Your task to perform on an android device: turn on sleep mode Image 0: 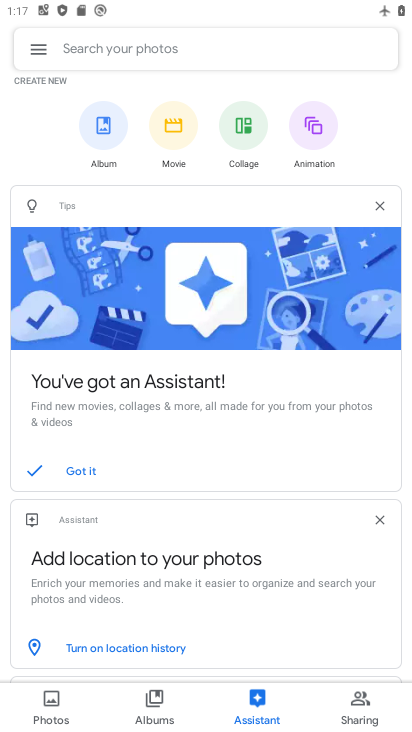
Step 0: press home button
Your task to perform on an android device: turn on sleep mode Image 1: 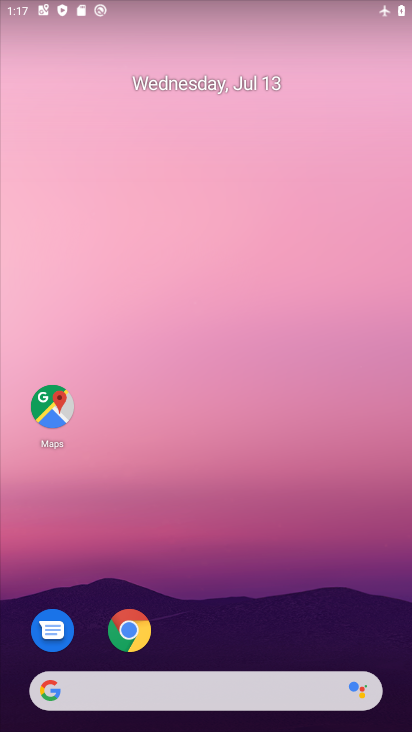
Step 1: drag from (329, 619) to (371, 125)
Your task to perform on an android device: turn on sleep mode Image 2: 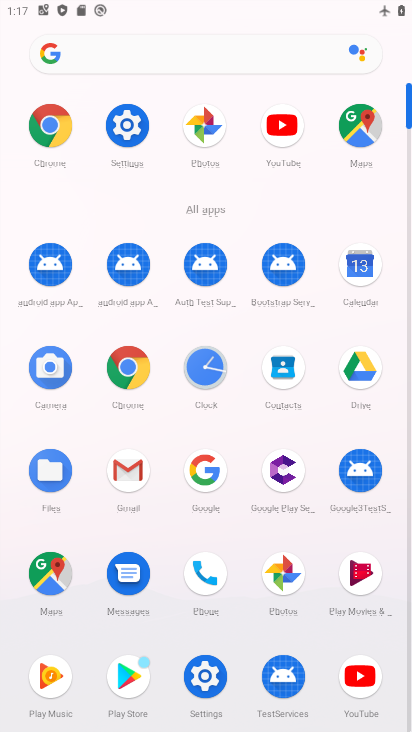
Step 2: click (127, 135)
Your task to perform on an android device: turn on sleep mode Image 3: 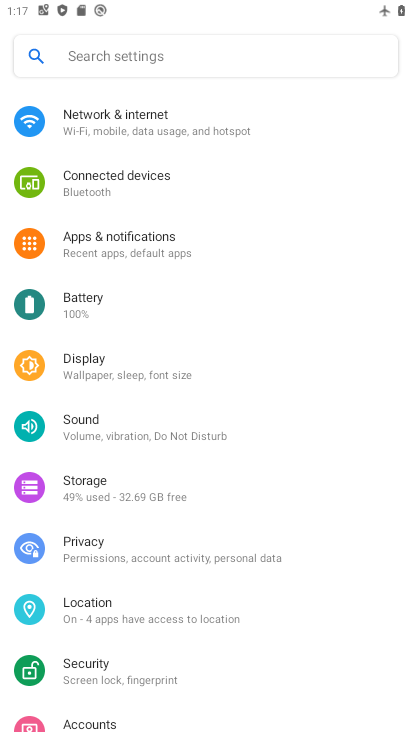
Step 3: drag from (356, 494) to (356, 304)
Your task to perform on an android device: turn on sleep mode Image 4: 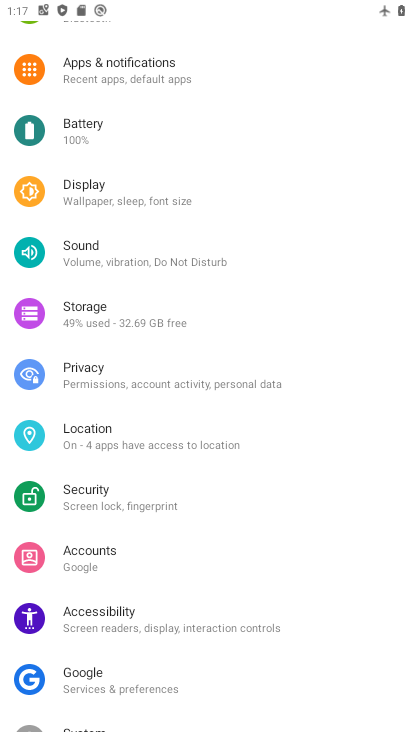
Step 4: drag from (355, 509) to (342, 299)
Your task to perform on an android device: turn on sleep mode Image 5: 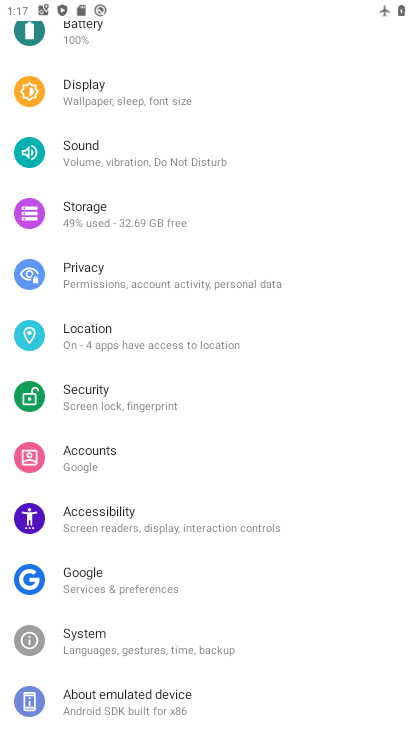
Step 5: drag from (330, 280) to (330, 394)
Your task to perform on an android device: turn on sleep mode Image 6: 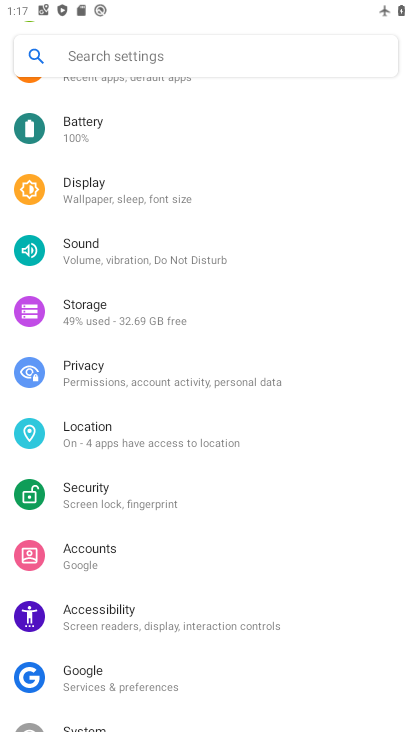
Step 6: drag from (330, 255) to (338, 513)
Your task to perform on an android device: turn on sleep mode Image 7: 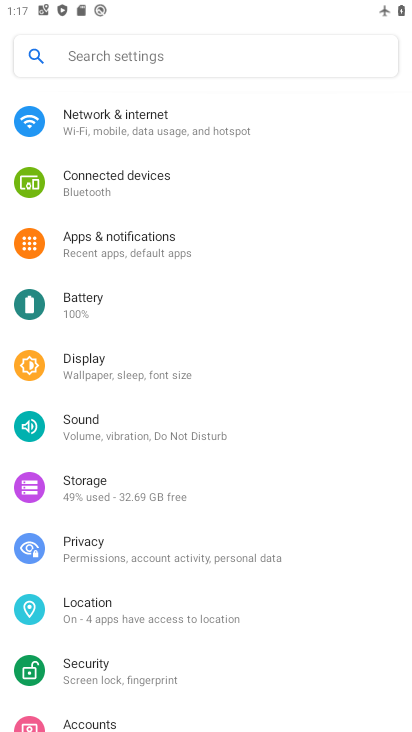
Step 7: click (177, 373)
Your task to perform on an android device: turn on sleep mode Image 8: 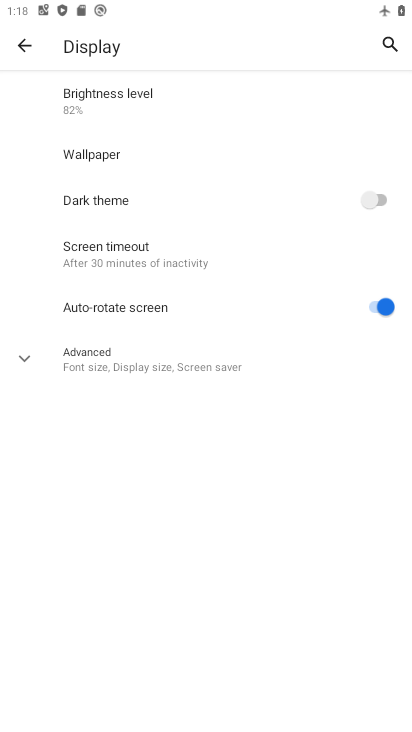
Step 8: click (193, 355)
Your task to perform on an android device: turn on sleep mode Image 9: 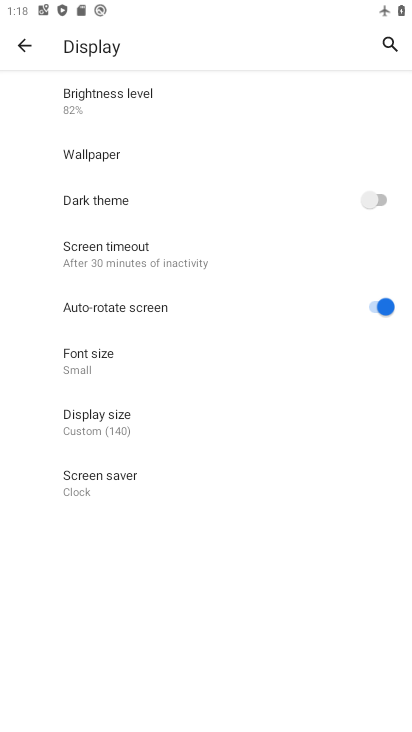
Step 9: task complete